Your task to perform on an android device: Go to network settings Image 0: 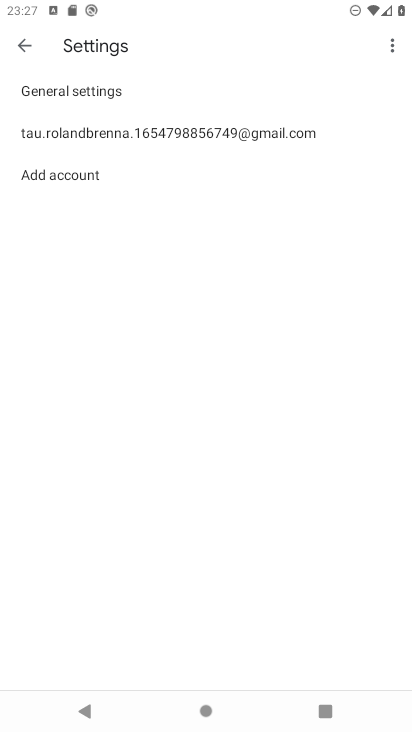
Step 0: press home button
Your task to perform on an android device: Go to network settings Image 1: 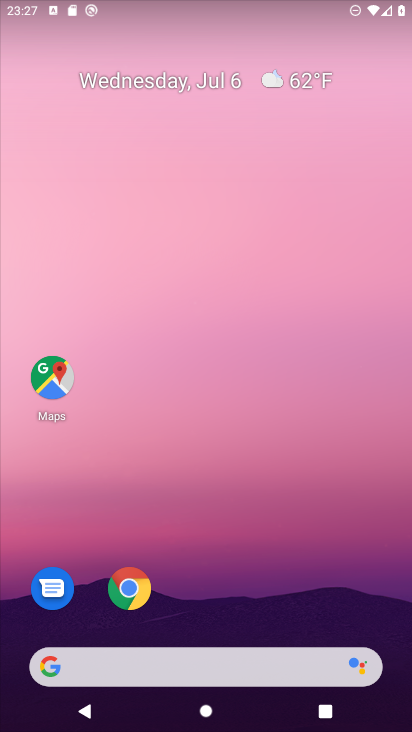
Step 1: drag from (356, 616) to (301, 118)
Your task to perform on an android device: Go to network settings Image 2: 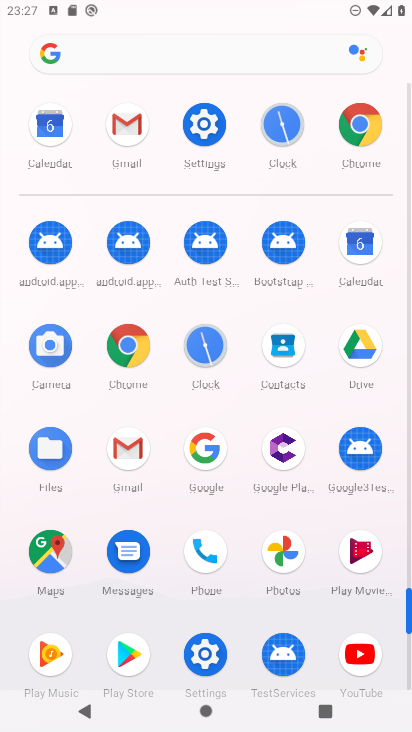
Step 2: click (206, 651)
Your task to perform on an android device: Go to network settings Image 3: 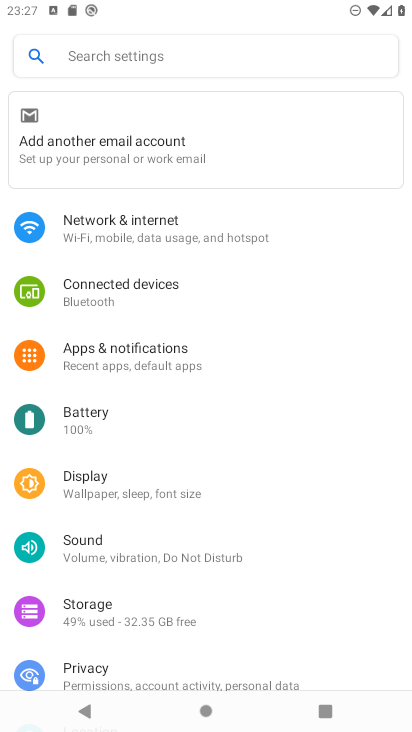
Step 3: click (96, 222)
Your task to perform on an android device: Go to network settings Image 4: 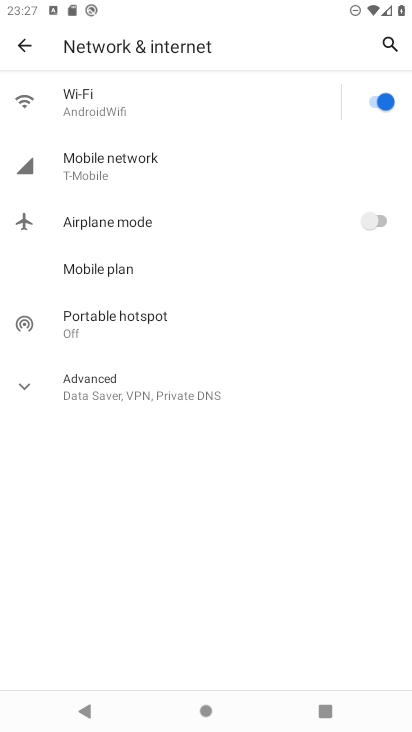
Step 4: click (85, 160)
Your task to perform on an android device: Go to network settings Image 5: 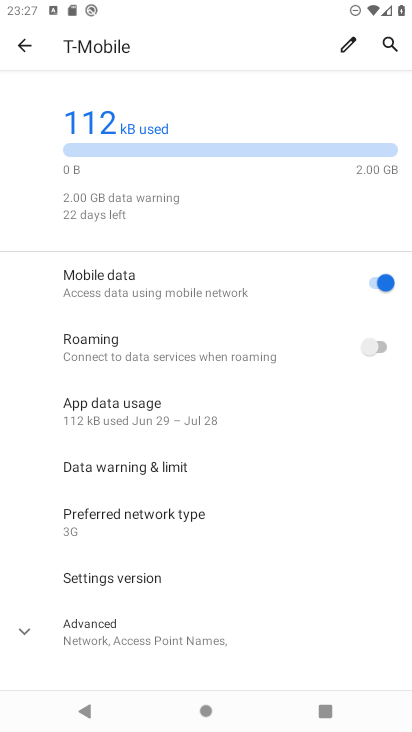
Step 5: click (26, 629)
Your task to perform on an android device: Go to network settings Image 6: 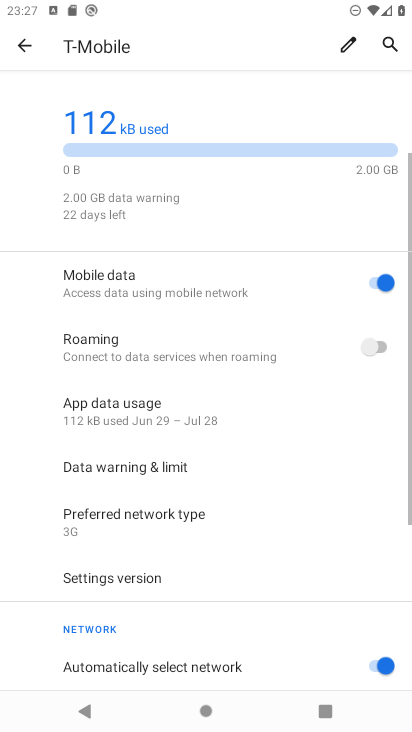
Step 6: task complete